Your task to perform on an android device: open app "Lyft - Rideshare, Bikes, Scooters & Transit" (install if not already installed) and go to login screen Image 0: 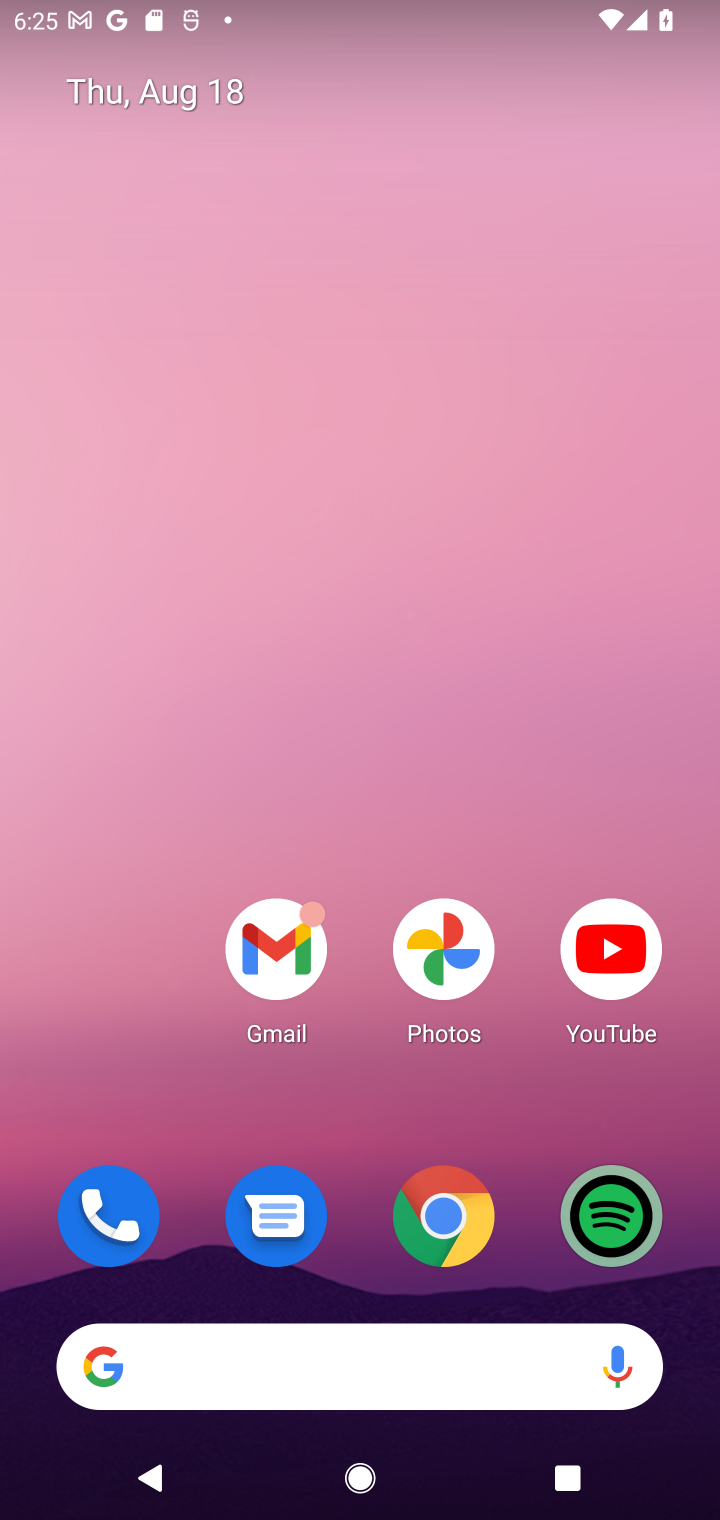
Step 0: drag from (540, 1283) to (517, 222)
Your task to perform on an android device: open app "Lyft - Rideshare, Bikes, Scooters & Transit" (install if not already installed) and go to login screen Image 1: 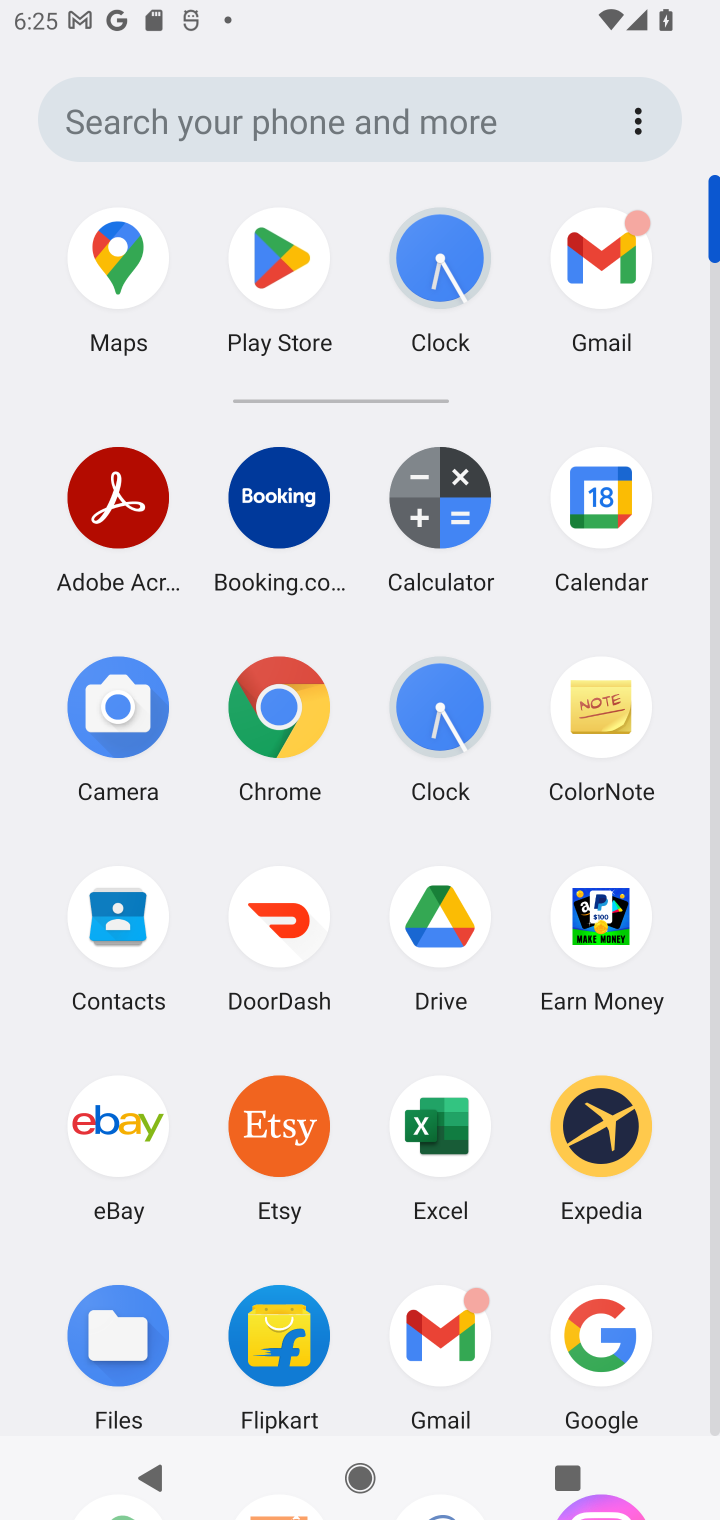
Step 1: drag from (529, 1288) to (514, 471)
Your task to perform on an android device: open app "Lyft - Rideshare, Bikes, Scooters & Transit" (install if not already installed) and go to login screen Image 2: 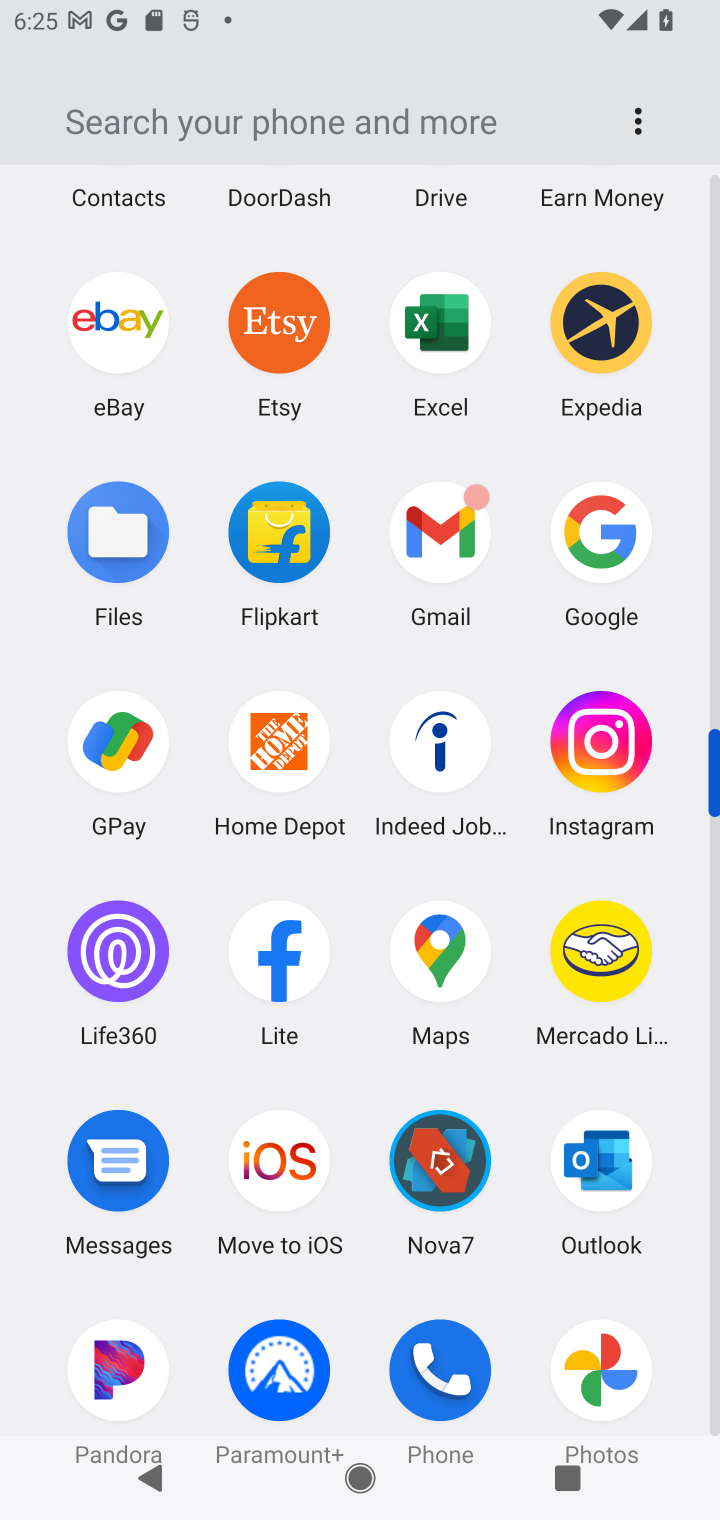
Step 2: drag from (521, 1286) to (515, 587)
Your task to perform on an android device: open app "Lyft - Rideshare, Bikes, Scooters & Transit" (install if not already installed) and go to login screen Image 3: 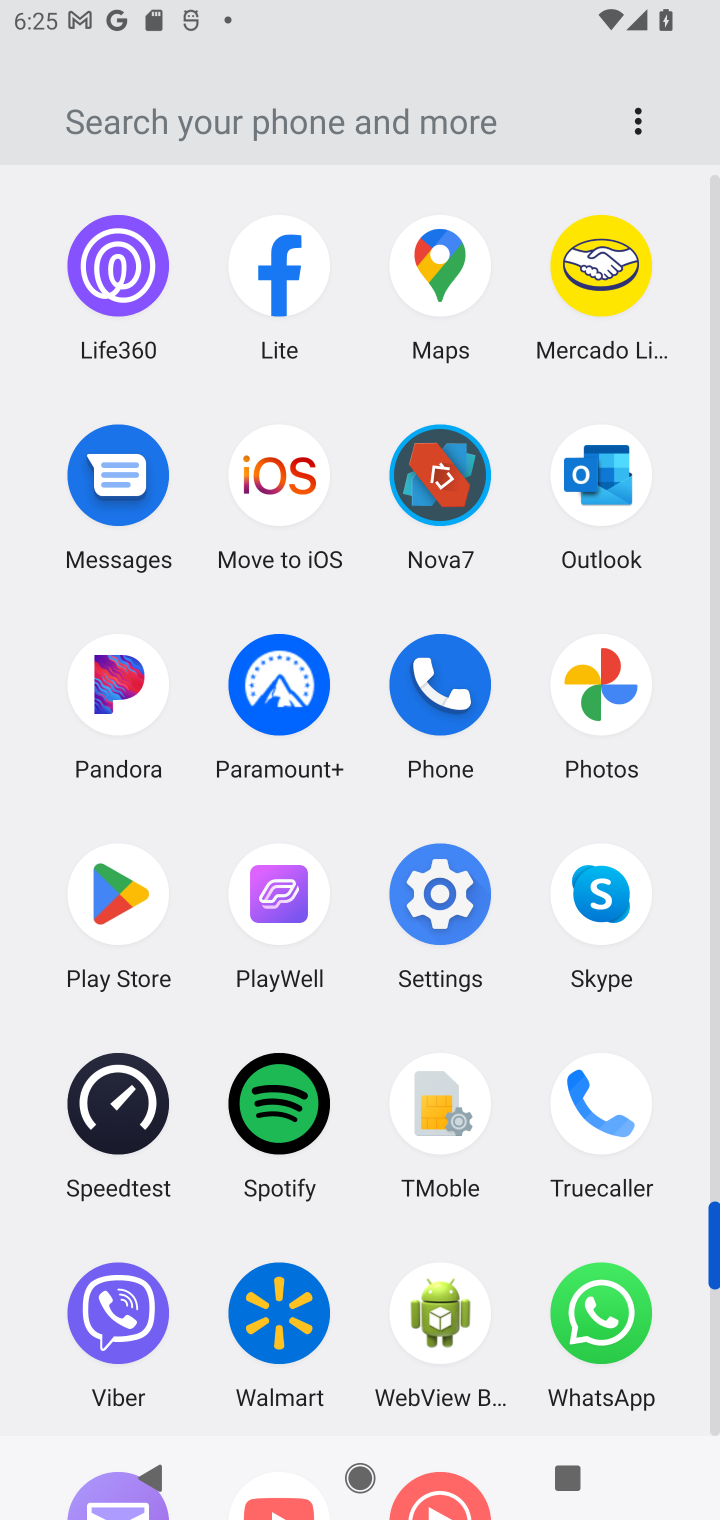
Step 3: click (122, 897)
Your task to perform on an android device: open app "Lyft - Rideshare, Bikes, Scooters & Transit" (install if not already installed) and go to login screen Image 4: 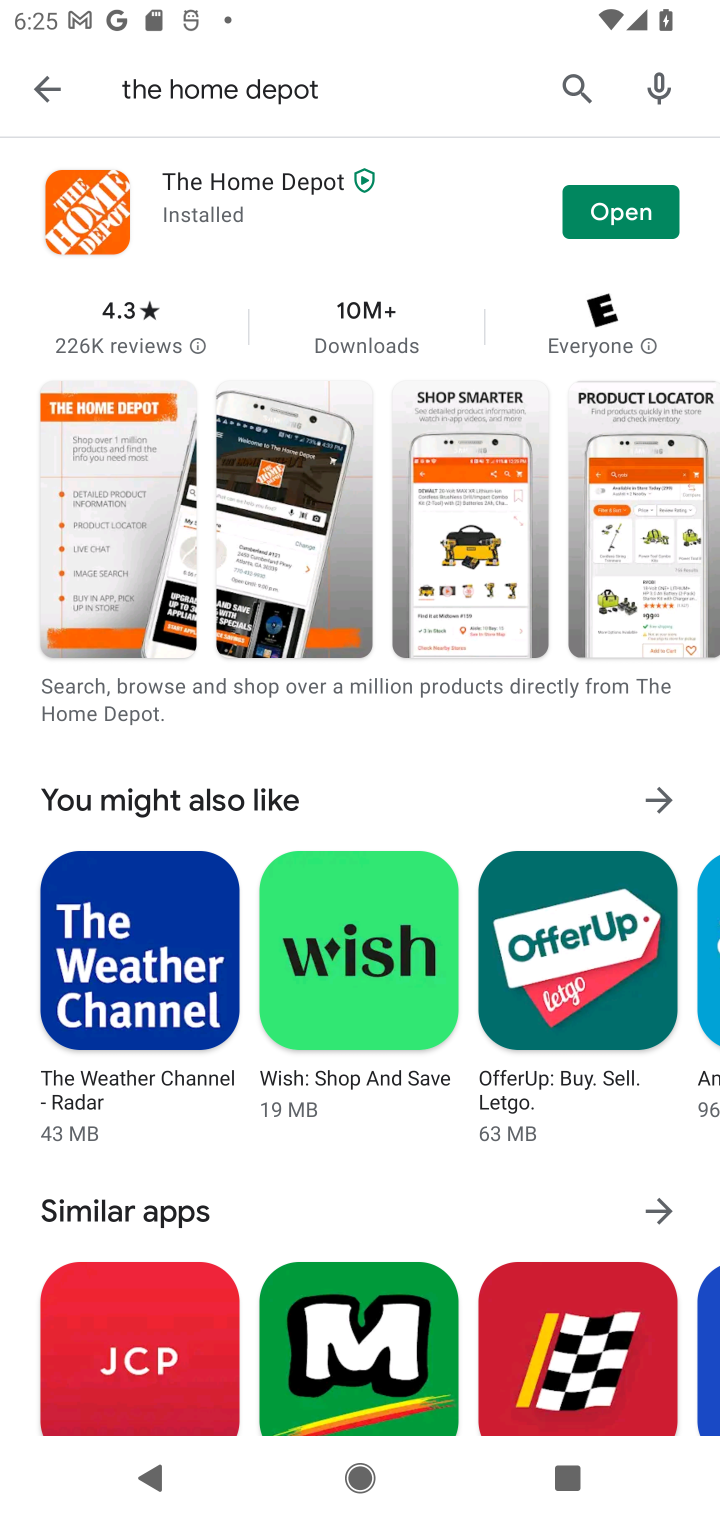
Step 4: click (572, 84)
Your task to perform on an android device: open app "Lyft - Rideshare, Bikes, Scooters & Transit" (install if not already installed) and go to login screen Image 5: 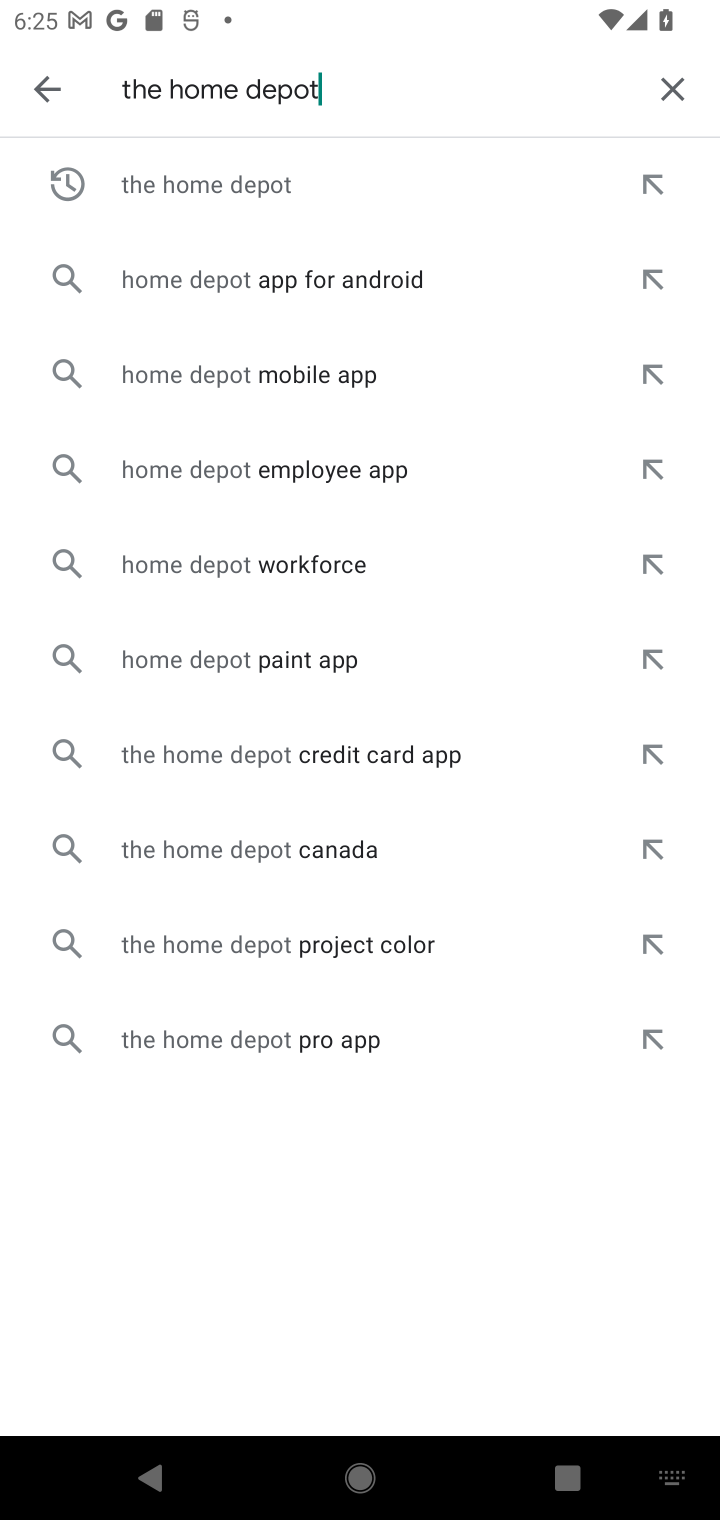
Step 5: click (667, 88)
Your task to perform on an android device: open app "Lyft - Rideshare, Bikes, Scooters & Transit" (install if not already installed) and go to login screen Image 6: 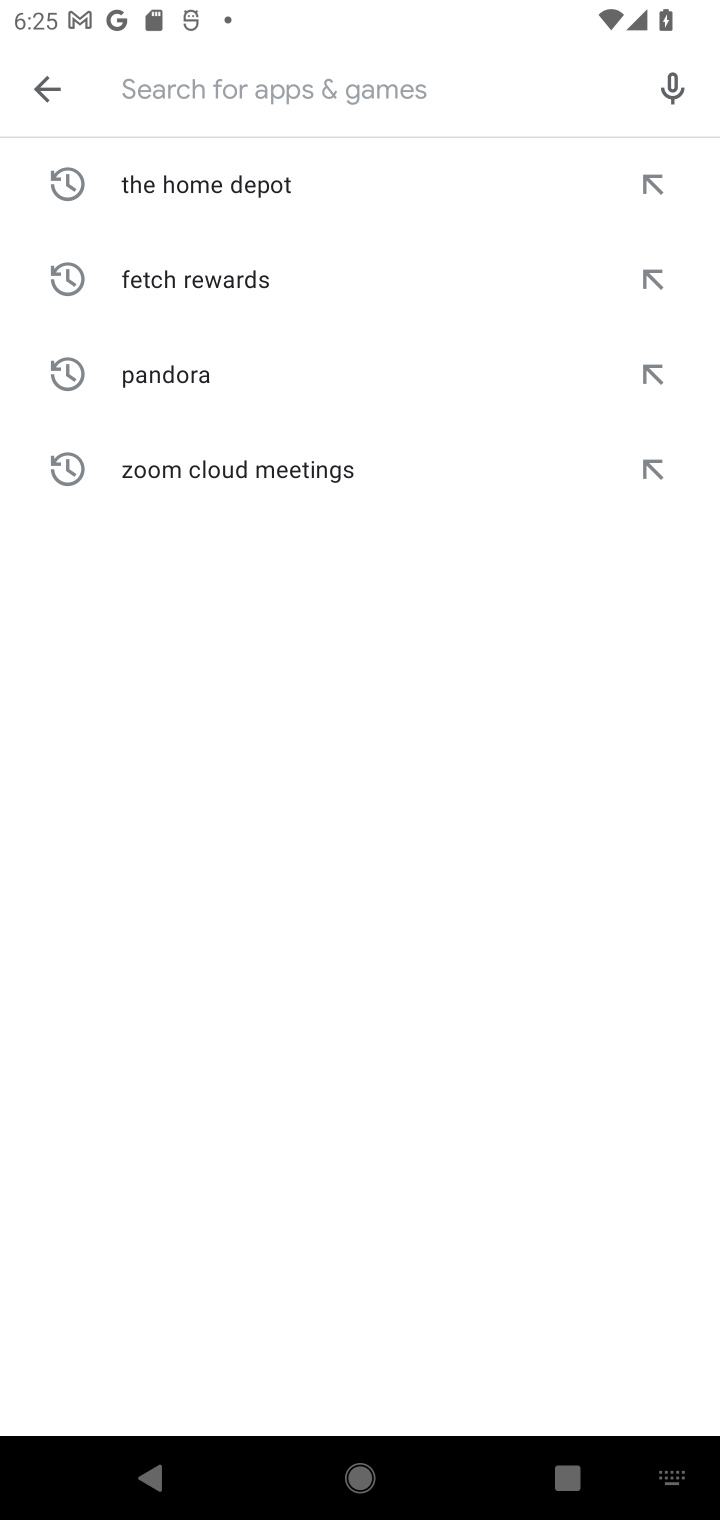
Step 6: type "Lyft - Rideshare, Bikes, Scooters & Transit"
Your task to perform on an android device: open app "Lyft - Rideshare, Bikes, Scooters & Transit" (install if not already installed) and go to login screen Image 7: 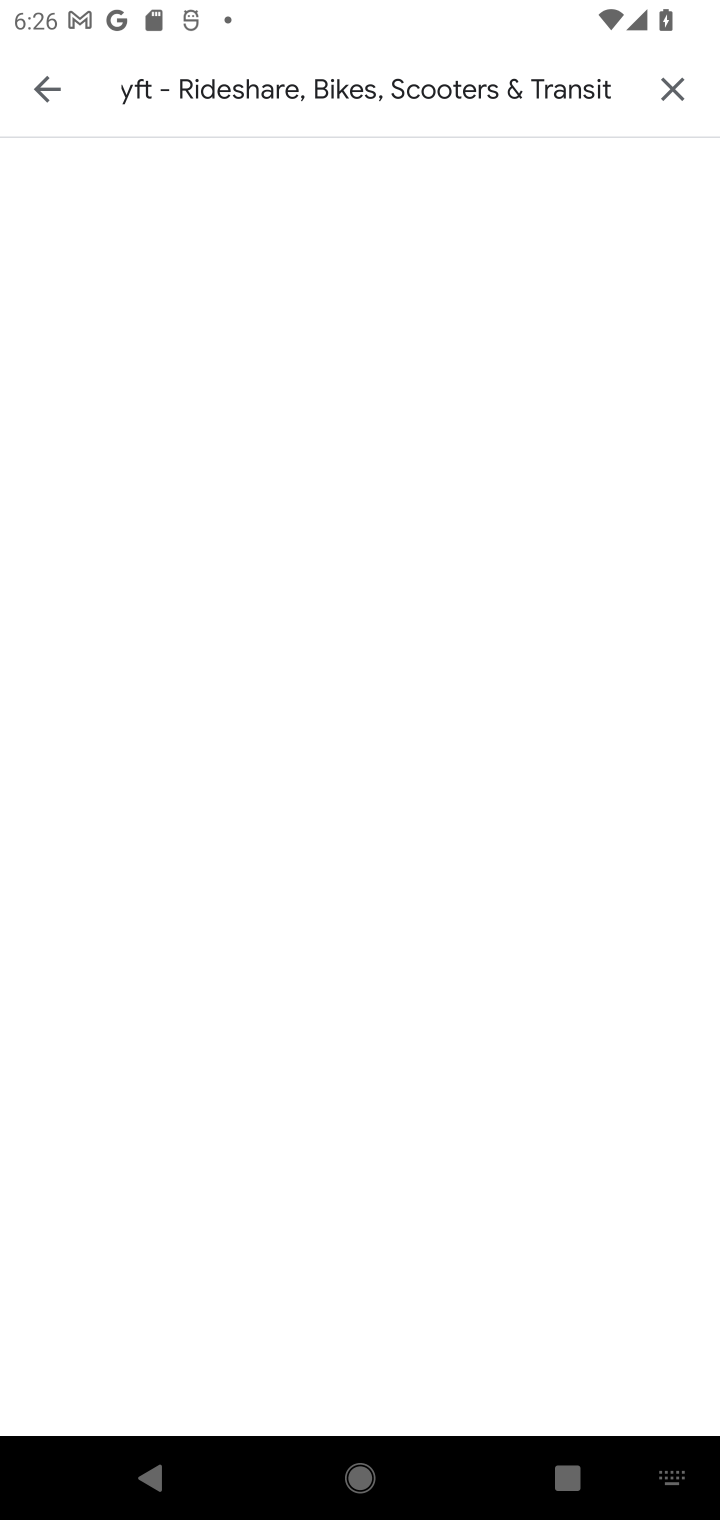
Step 7: task complete